Your task to perform on an android device: Go to Wikipedia Image 0: 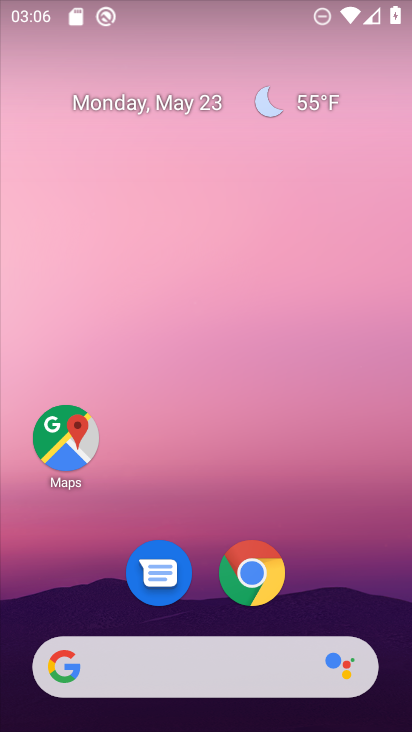
Step 0: click (268, 569)
Your task to perform on an android device: Go to Wikipedia Image 1: 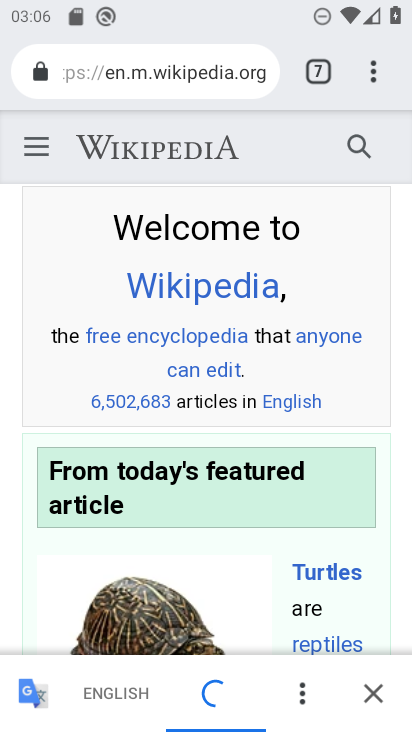
Step 1: task complete